Your task to perform on an android device: toggle notification dots Image 0: 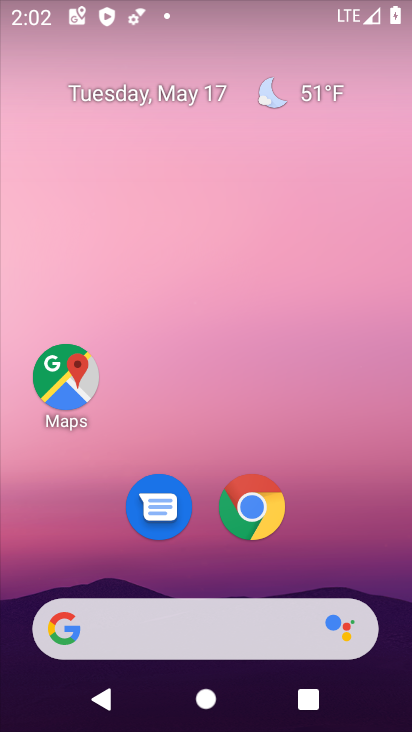
Step 0: drag from (299, 488) to (304, 0)
Your task to perform on an android device: toggle notification dots Image 1: 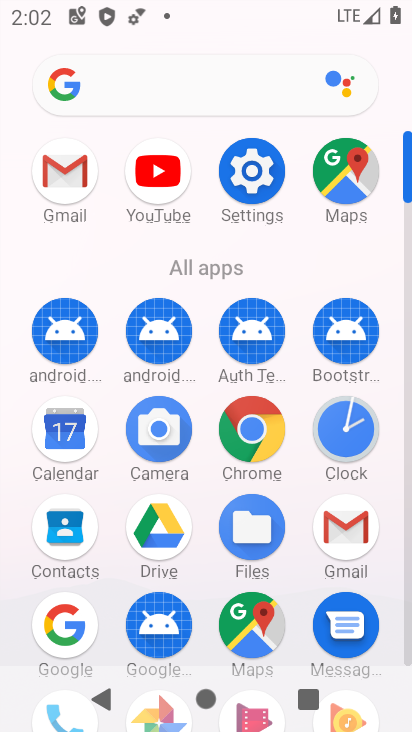
Step 1: click (253, 175)
Your task to perform on an android device: toggle notification dots Image 2: 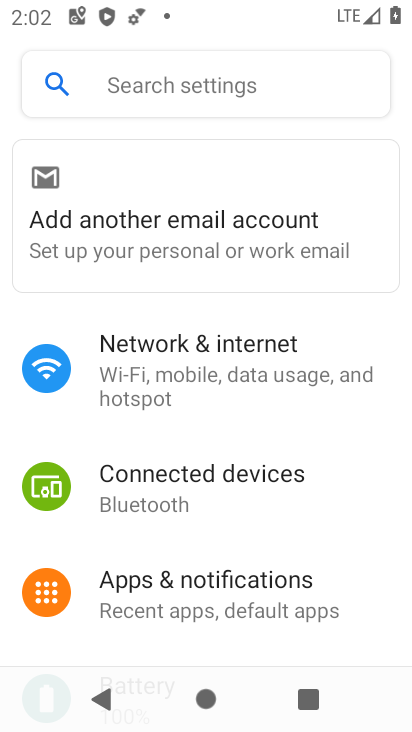
Step 2: click (150, 577)
Your task to perform on an android device: toggle notification dots Image 3: 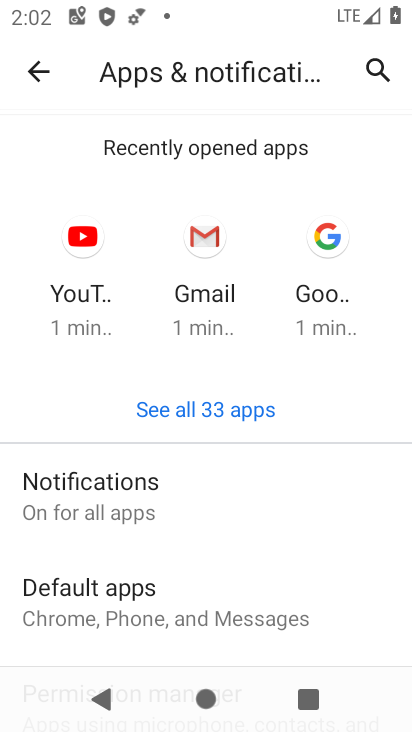
Step 3: click (140, 499)
Your task to perform on an android device: toggle notification dots Image 4: 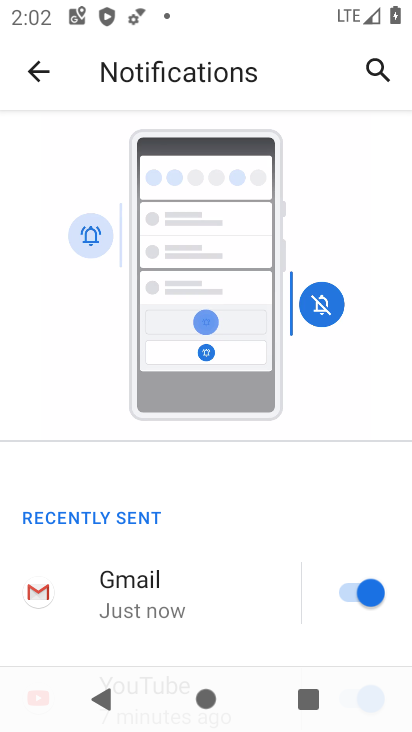
Step 4: drag from (199, 611) to (243, 140)
Your task to perform on an android device: toggle notification dots Image 5: 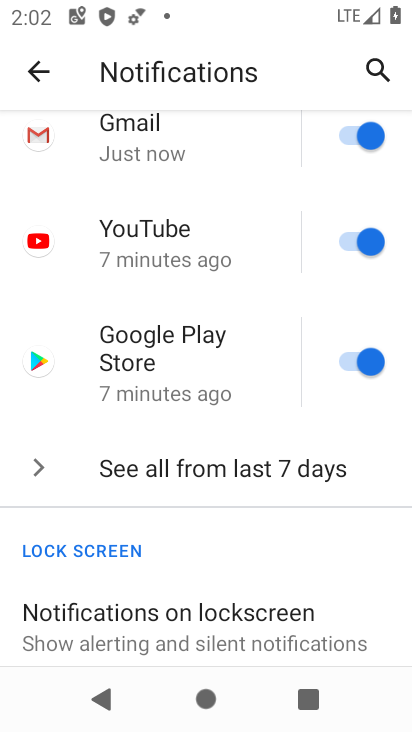
Step 5: drag from (209, 611) to (210, 263)
Your task to perform on an android device: toggle notification dots Image 6: 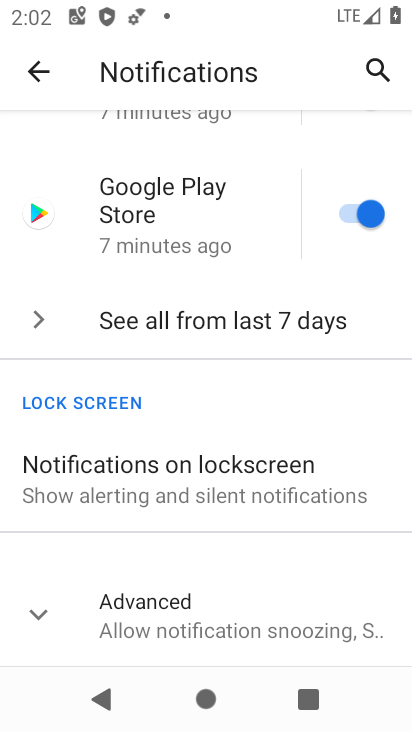
Step 6: click (220, 619)
Your task to perform on an android device: toggle notification dots Image 7: 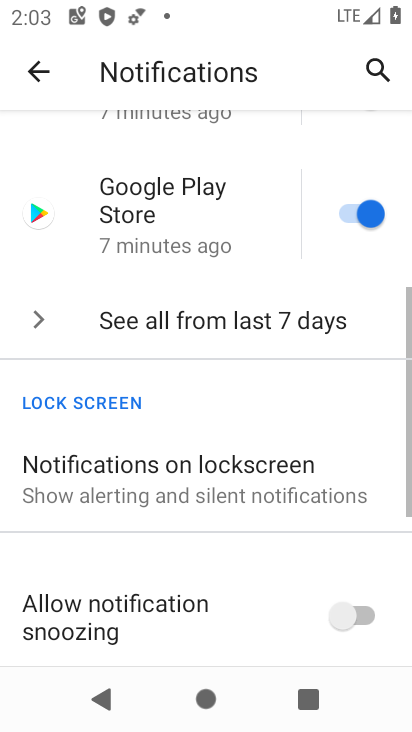
Step 7: drag from (215, 542) to (252, 189)
Your task to perform on an android device: toggle notification dots Image 8: 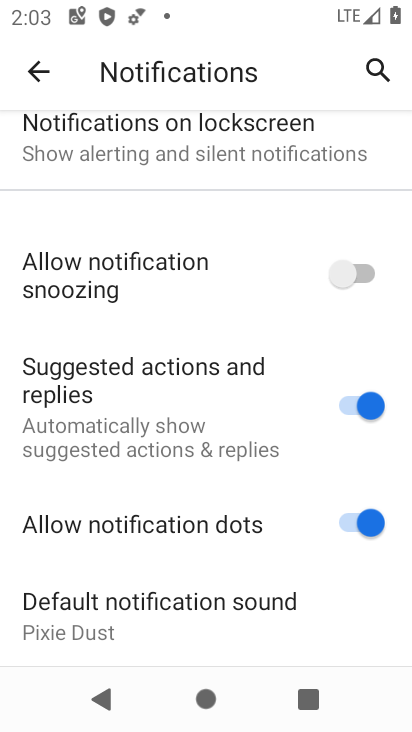
Step 8: click (345, 531)
Your task to perform on an android device: toggle notification dots Image 9: 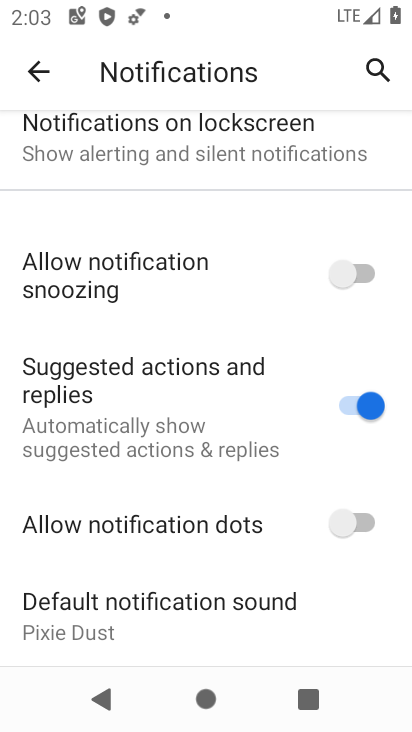
Step 9: task complete